Your task to perform on an android device: add a label to a message in the gmail app Image 0: 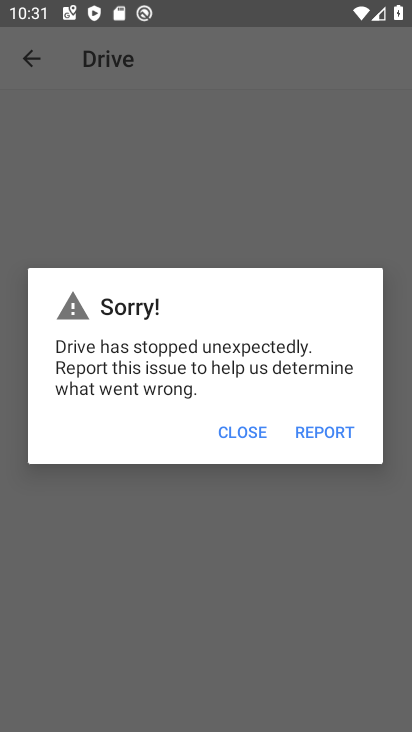
Step 0: press home button
Your task to perform on an android device: add a label to a message in the gmail app Image 1: 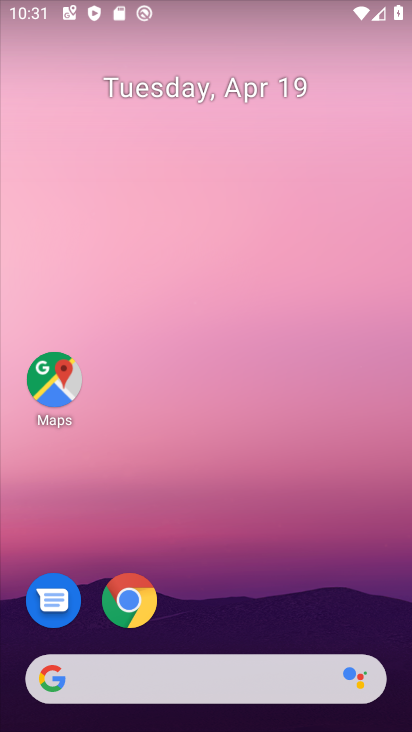
Step 1: drag from (235, 543) to (303, 15)
Your task to perform on an android device: add a label to a message in the gmail app Image 2: 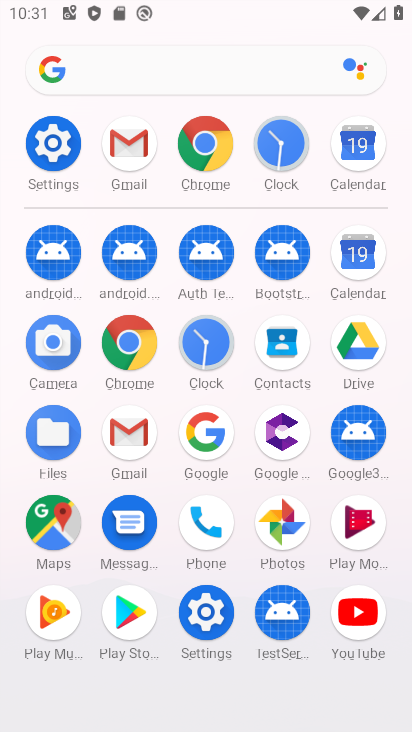
Step 2: click (124, 430)
Your task to perform on an android device: add a label to a message in the gmail app Image 3: 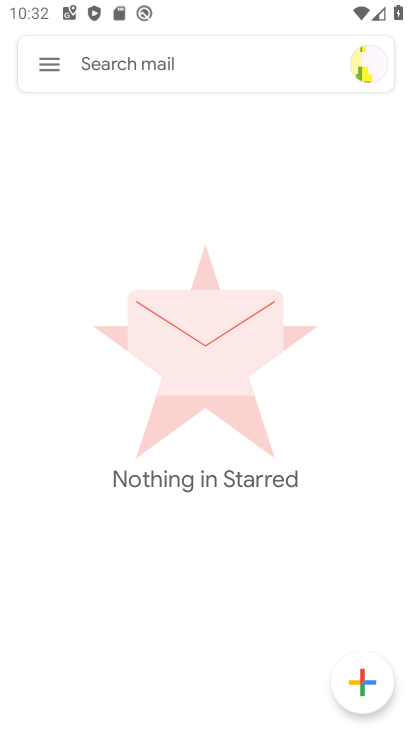
Step 3: click (49, 72)
Your task to perform on an android device: add a label to a message in the gmail app Image 4: 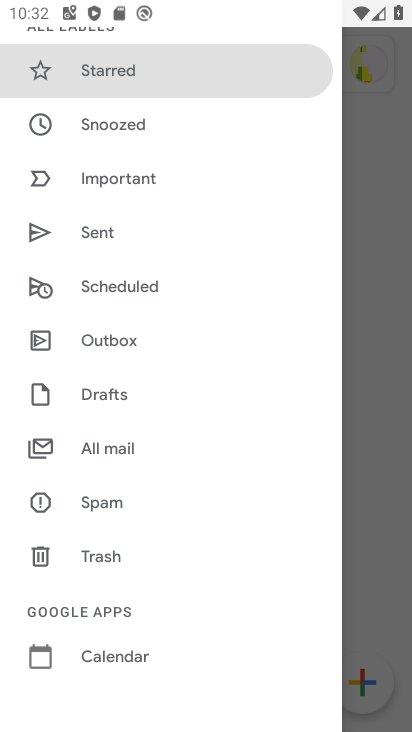
Step 4: click (125, 439)
Your task to perform on an android device: add a label to a message in the gmail app Image 5: 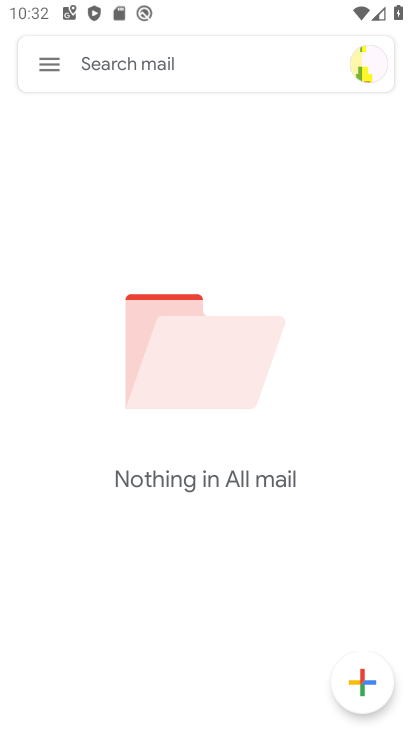
Step 5: task complete